Your task to perform on an android device: Open Google Chrome Image 0: 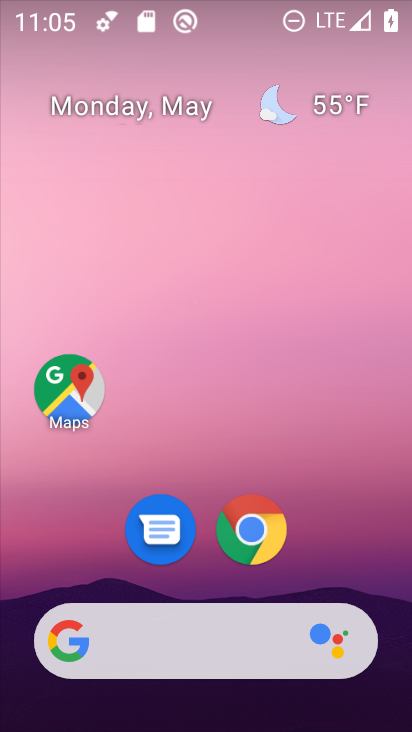
Step 0: click (249, 548)
Your task to perform on an android device: Open Google Chrome Image 1: 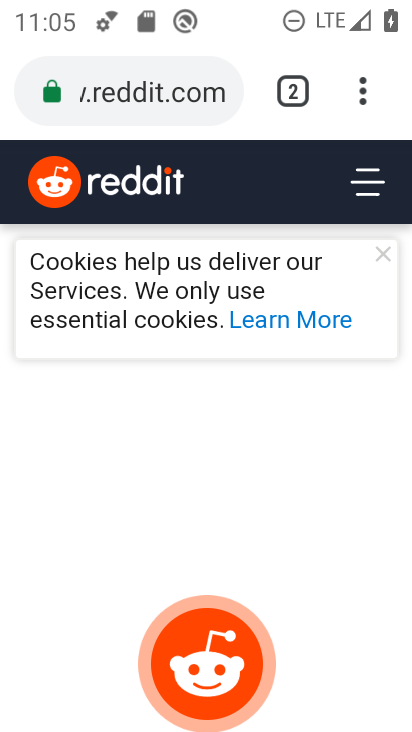
Step 1: task complete